Your task to perform on an android device: Go to Google maps Image 0: 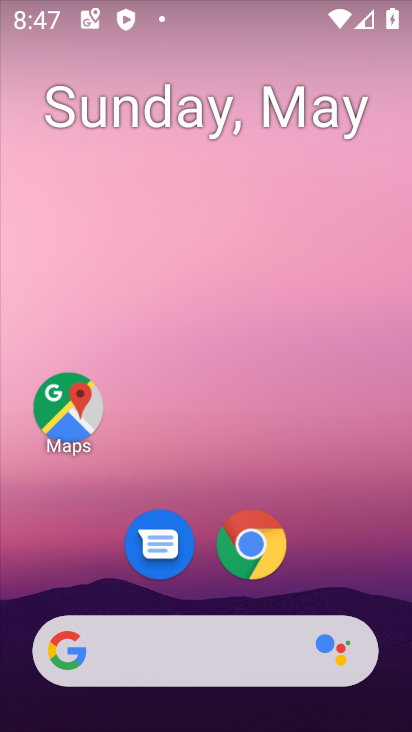
Step 0: drag from (374, 532) to (343, 0)
Your task to perform on an android device: Go to Google maps Image 1: 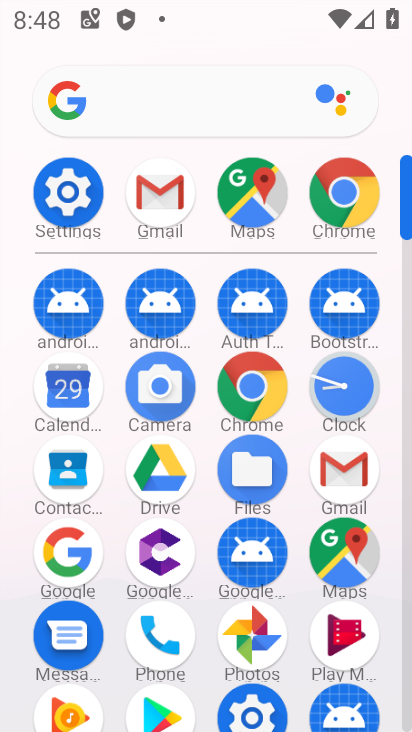
Step 1: click (364, 535)
Your task to perform on an android device: Go to Google maps Image 2: 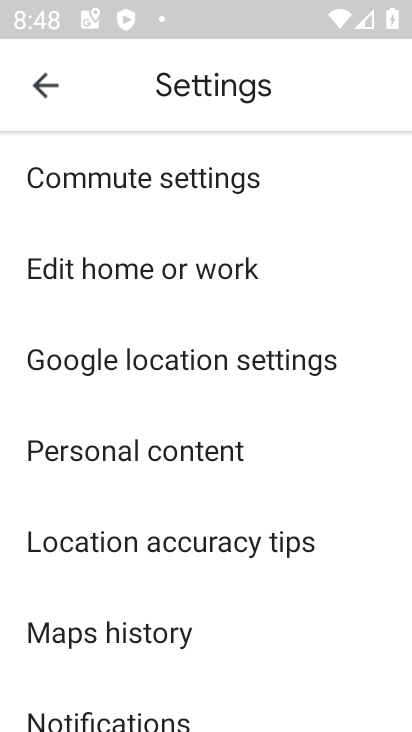
Step 2: click (55, 99)
Your task to perform on an android device: Go to Google maps Image 3: 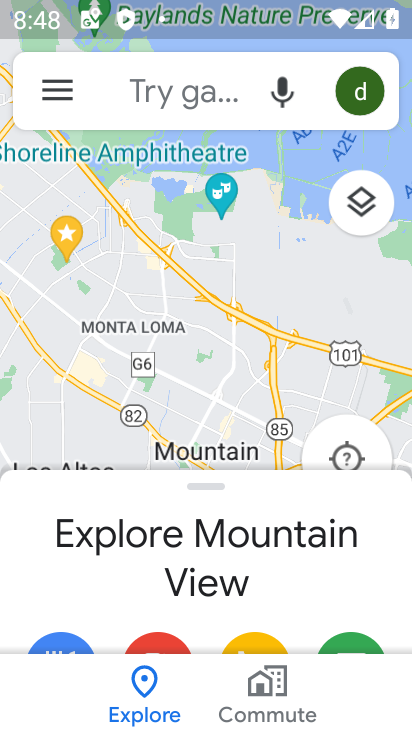
Step 3: task complete